Your task to perform on an android device: Search for bose soundlink on target, select the first entry, and add it to the cart. Image 0: 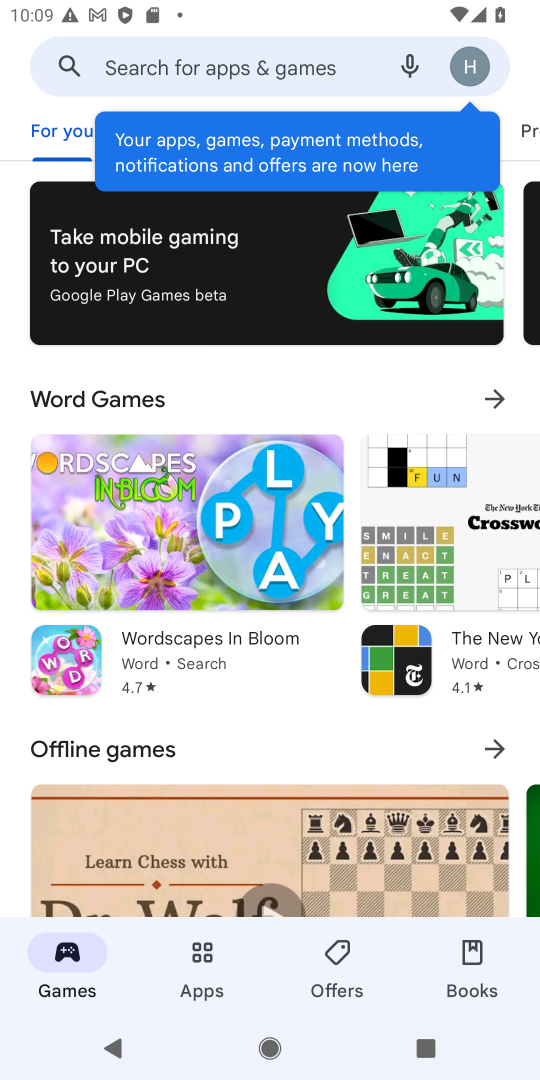
Step 0: press home button
Your task to perform on an android device: Search for bose soundlink on target, select the first entry, and add it to the cart. Image 1: 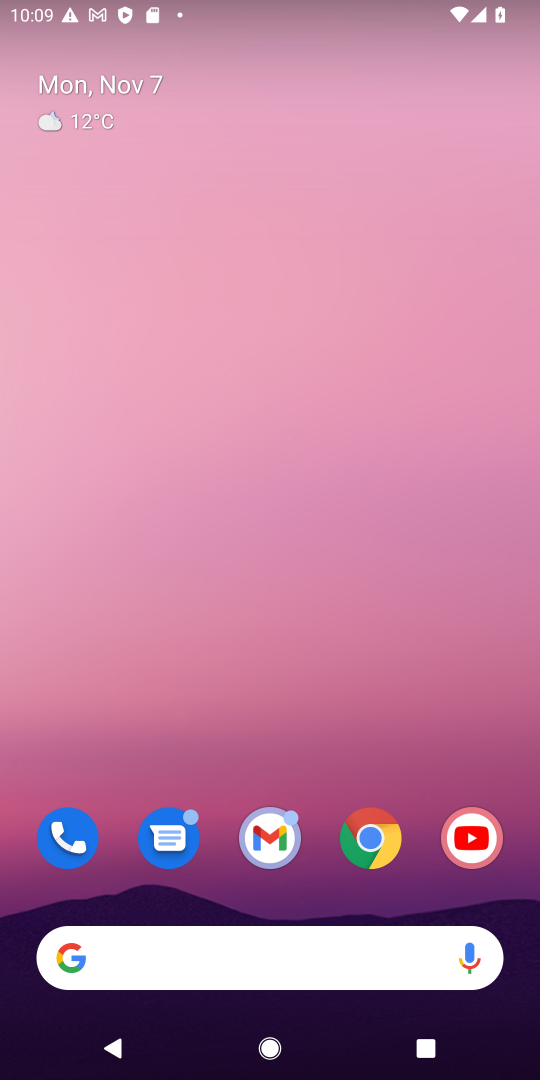
Step 1: click (360, 835)
Your task to perform on an android device: Search for bose soundlink on target, select the first entry, and add it to the cart. Image 2: 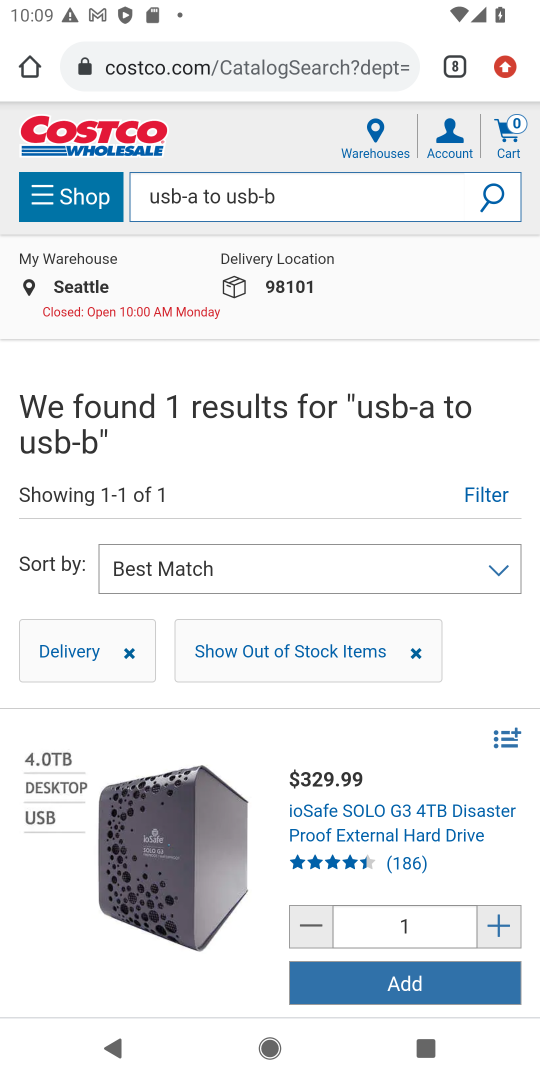
Step 2: click (453, 51)
Your task to perform on an android device: Search for bose soundlink on target, select the first entry, and add it to the cart. Image 3: 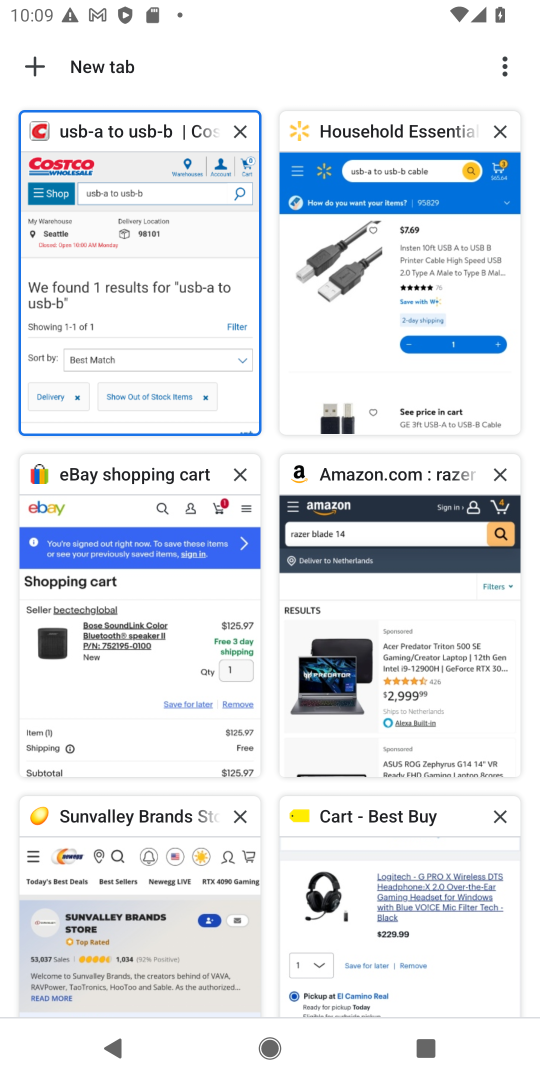
Step 3: click (453, 51)
Your task to perform on an android device: Search for bose soundlink on target, select the first entry, and add it to the cart. Image 4: 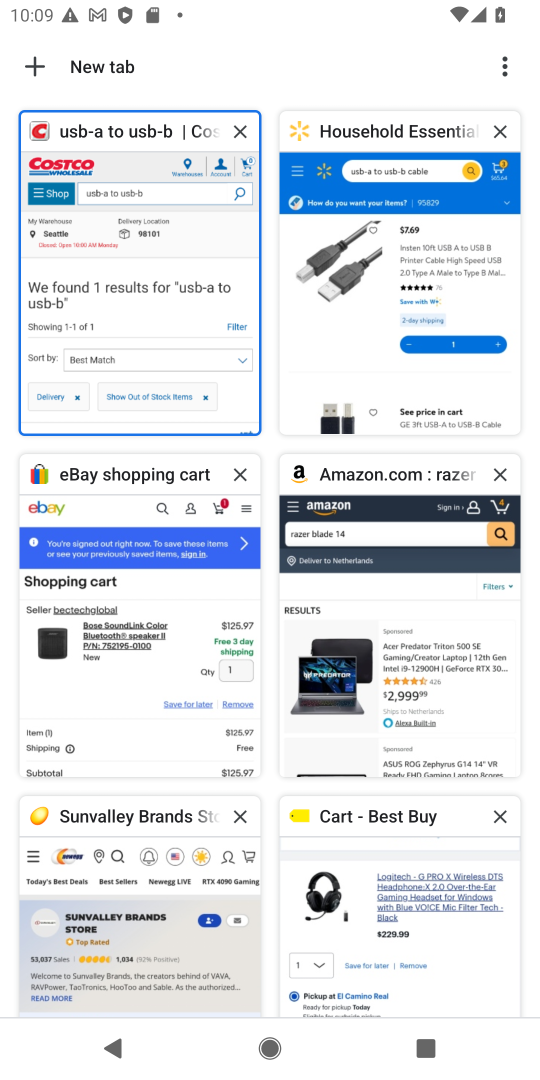
Step 4: drag from (280, 642) to (248, 142)
Your task to perform on an android device: Search for bose soundlink on target, select the first entry, and add it to the cart. Image 5: 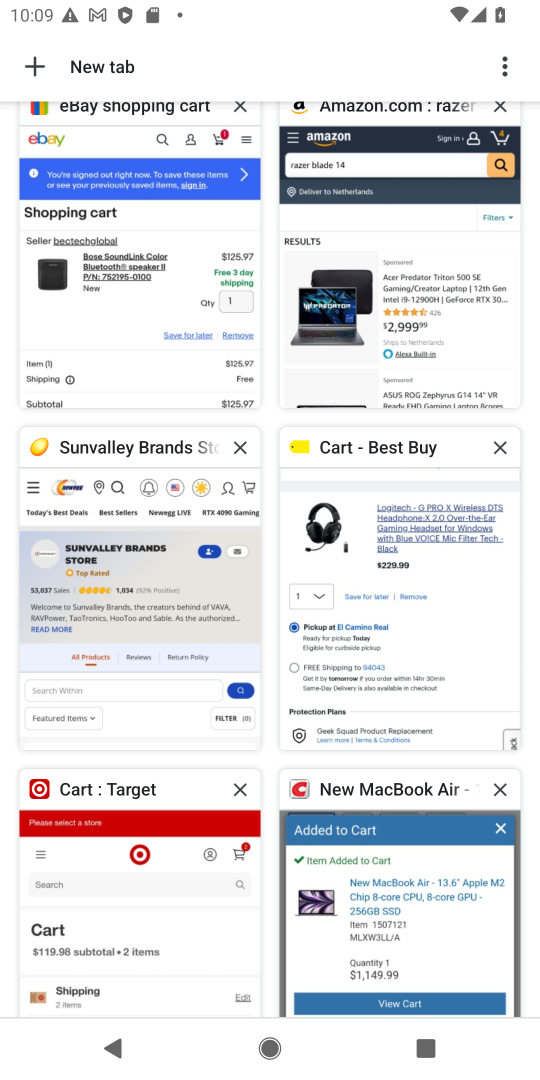
Step 5: click (153, 855)
Your task to perform on an android device: Search for bose soundlink on target, select the first entry, and add it to the cart. Image 6: 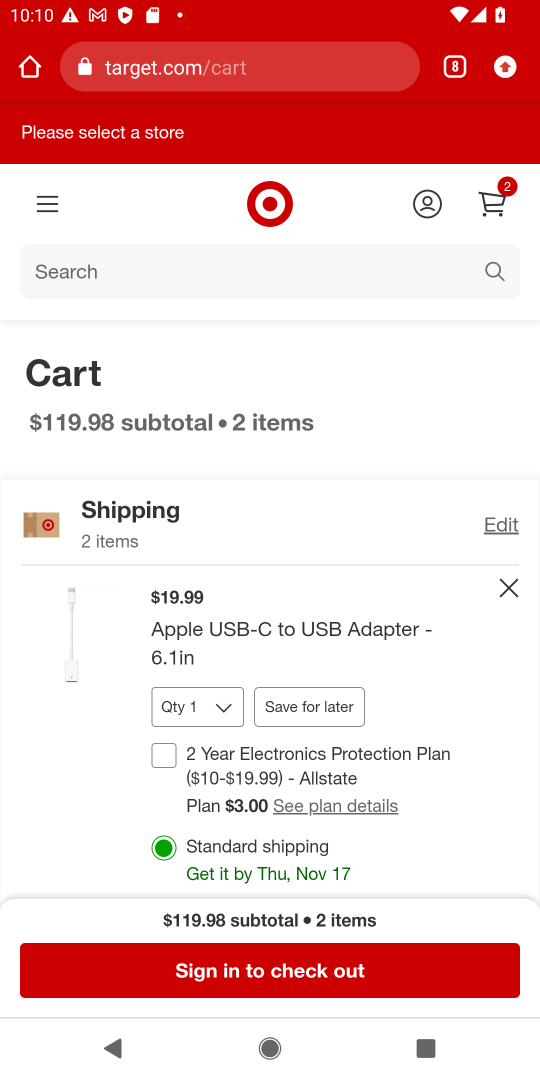
Step 6: click (210, 278)
Your task to perform on an android device: Search for bose soundlink on target, select the first entry, and add it to the cart. Image 7: 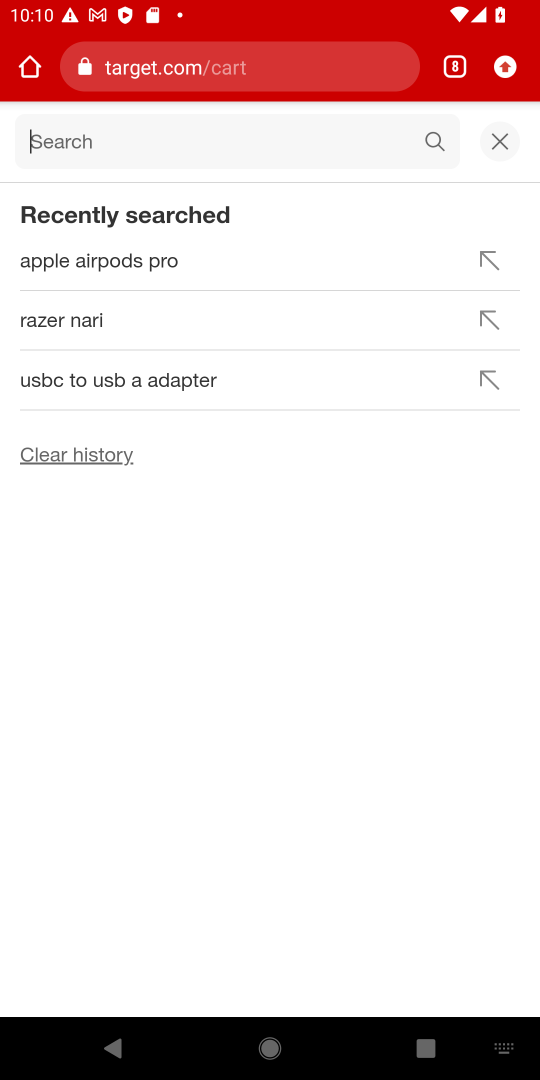
Step 7: type "bose soundlink"
Your task to perform on an android device: Search for bose soundlink on target, select the first entry, and add it to the cart. Image 8: 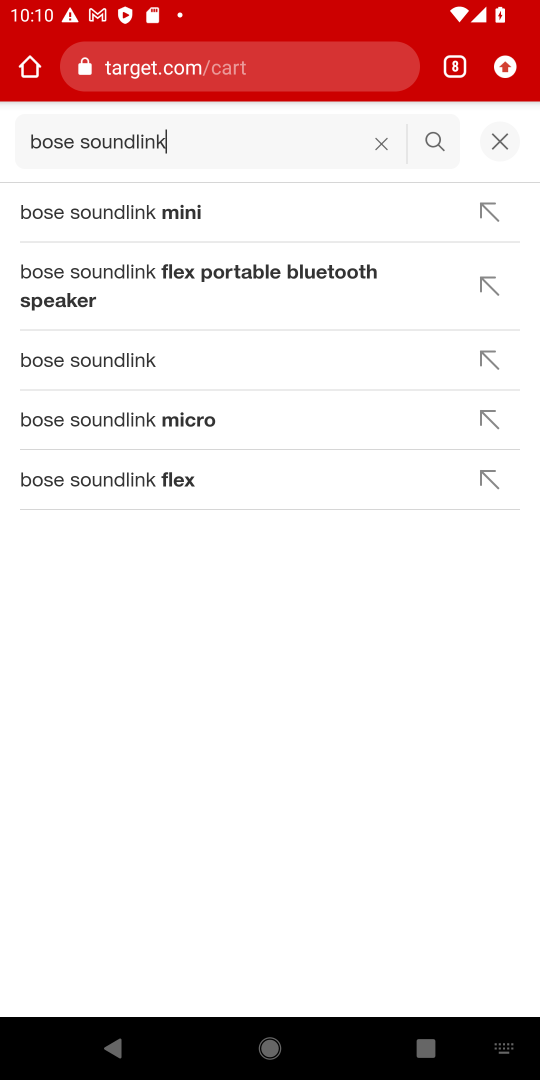
Step 8: click (139, 212)
Your task to perform on an android device: Search for bose soundlink on target, select the first entry, and add it to the cart. Image 9: 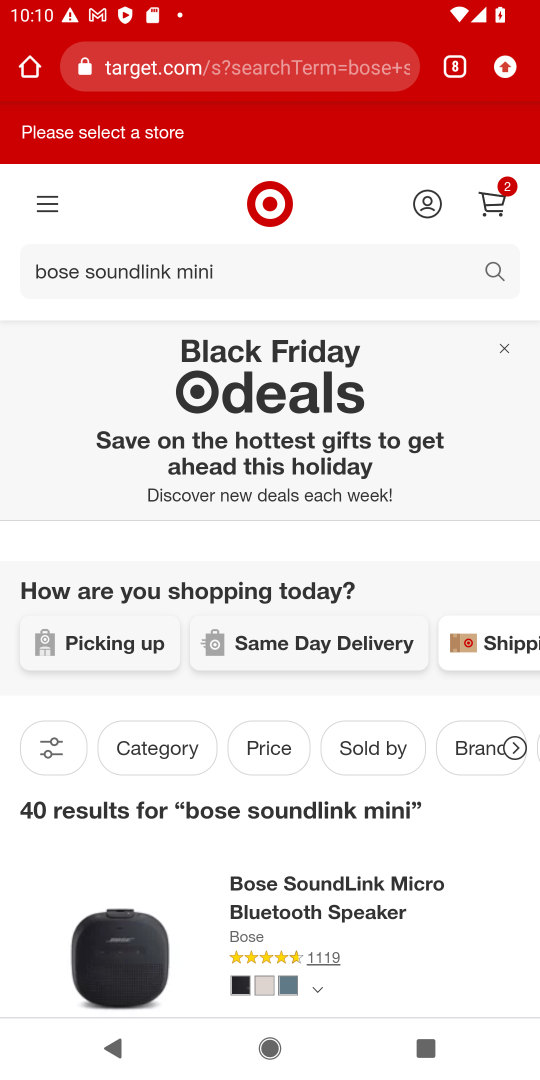
Step 9: drag from (230, 790) to (415, 133)
Your task to perform on an android device: Search for bose soundlink on target, select the first entry, and add it to the cart. Image 10: 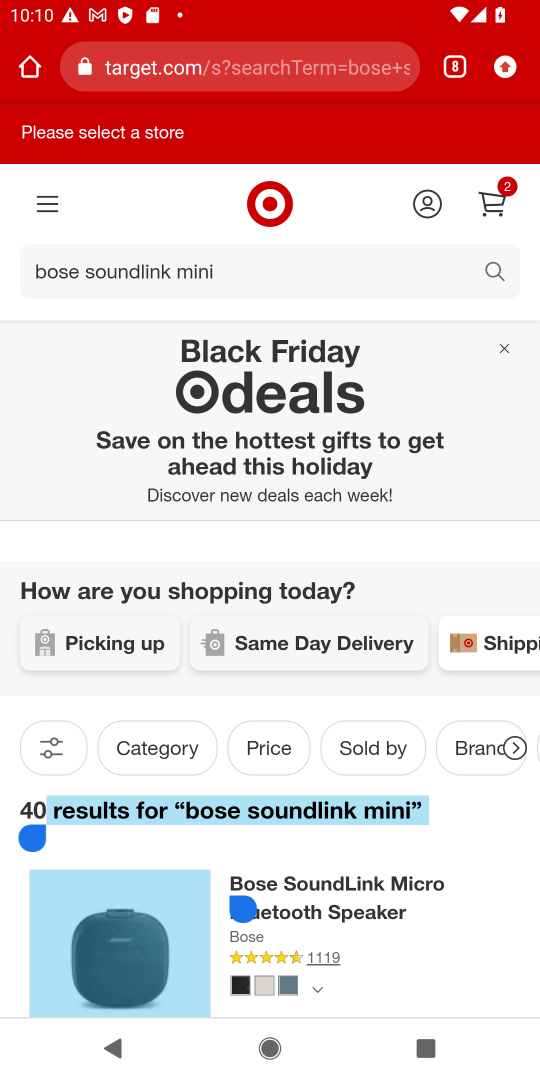
Step 10: click (405, 869)
Your task to perform on an android device: Search for bose soundlink on target, select the first entry, and add it to the cart. Image 11: 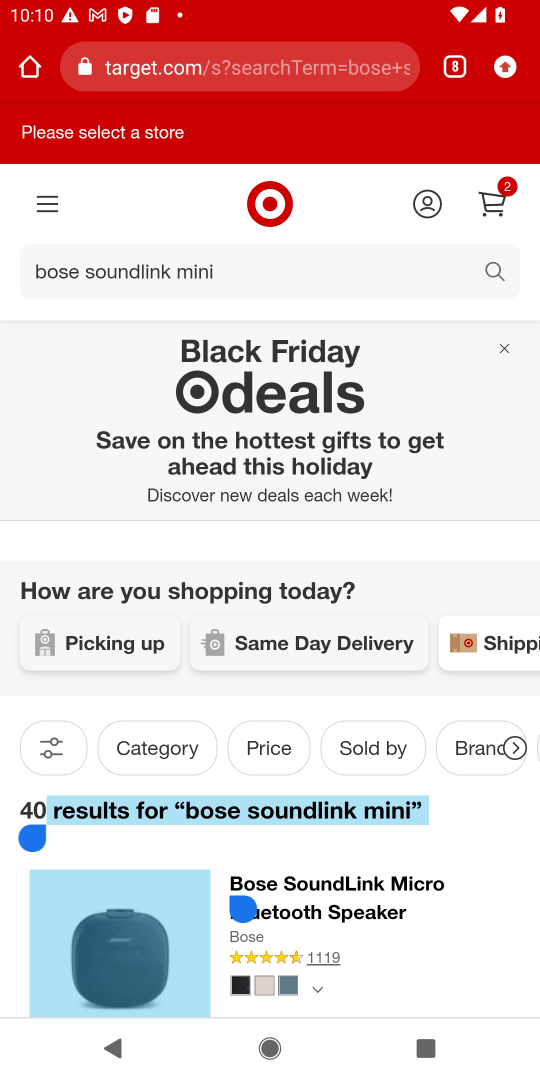
Step 11: drag from (405, 869) to (346, 227)
Your task to perform on an android device: Search for bose soundlink on target, select the first entry, and add it to the cart. Image 12: 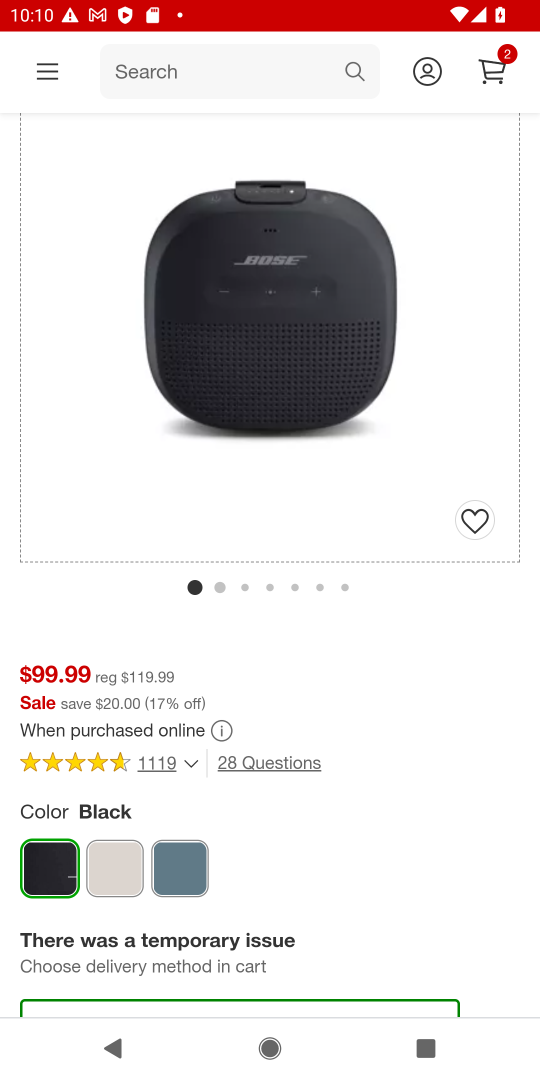
Step 12: drag from (336, 773) to (362, 74)
Your task to perform on an android device: Search for bose soundlink on target, select the first entry, and add it to the cart. Image 13: 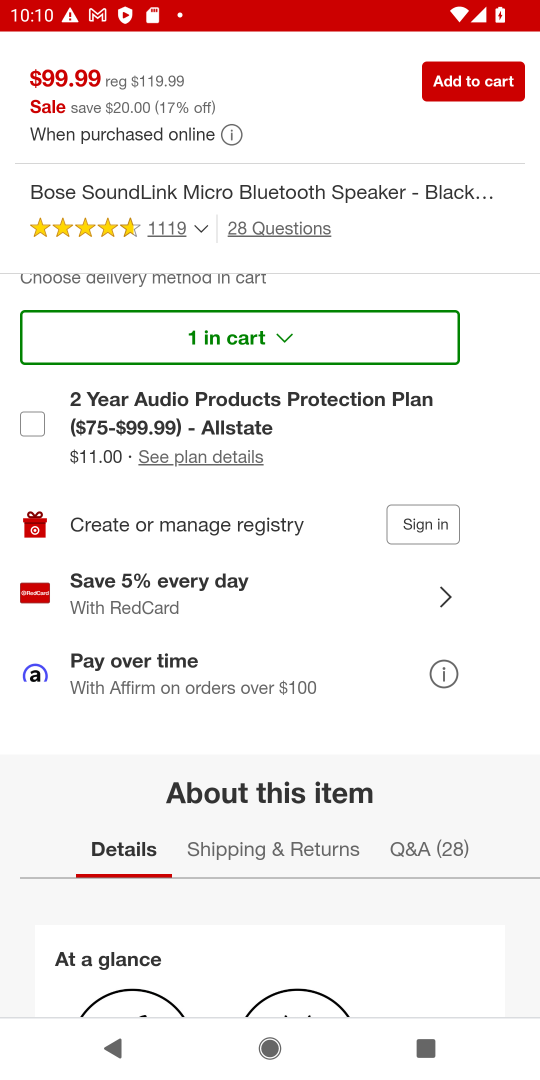
Step 13: click (463, 76)
Your task to perform on an android device: Search for bose soundlink on target, select the first entry, and add it to the cart. Image 14: 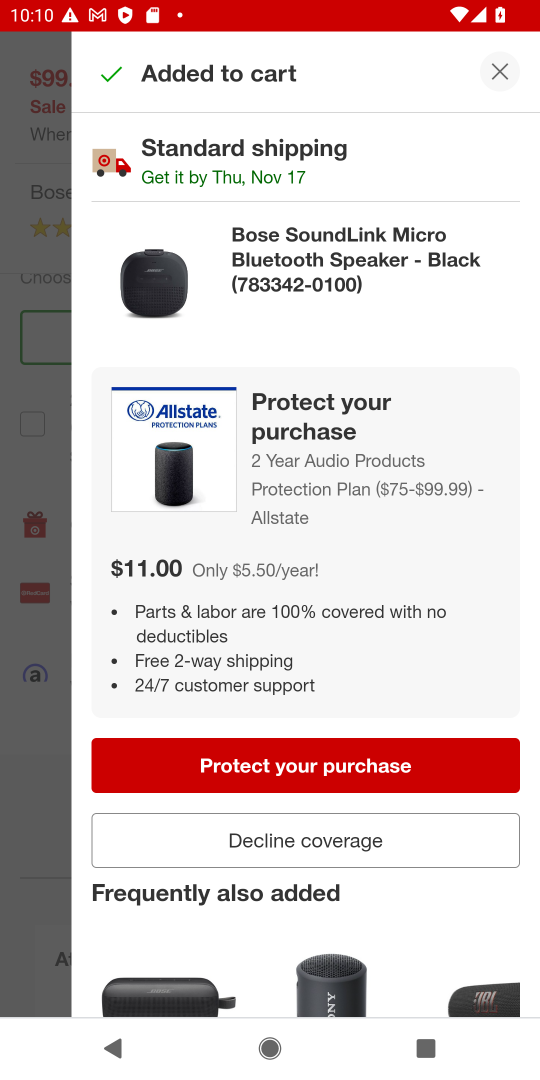
Step 14: task complete